Your task to perform on an android device: turn off airplane mode Image 0: 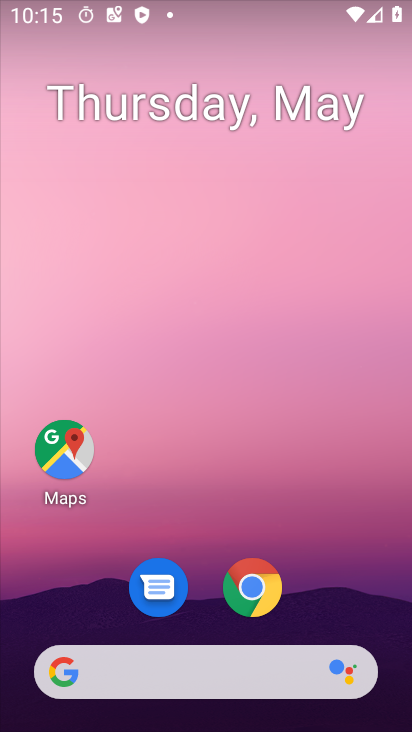
Step 0: drag from (362, 593) to (321, 5)
Your task to perform on an android device: turn off airplane mode Image 1: 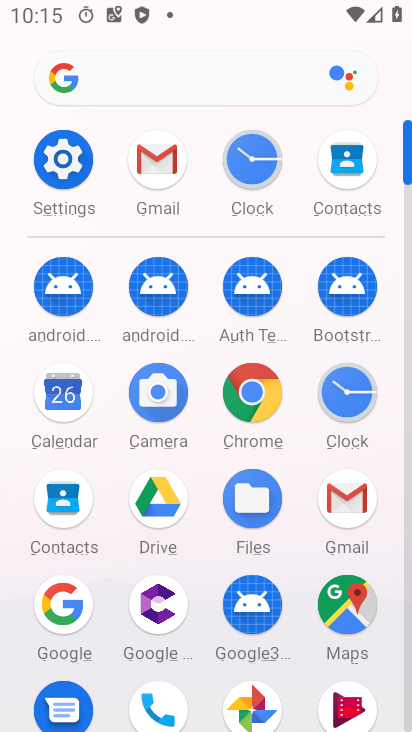
Step 1: click (64, 159)
Your task to perform on an android device: turn off airplane mode Image 2: 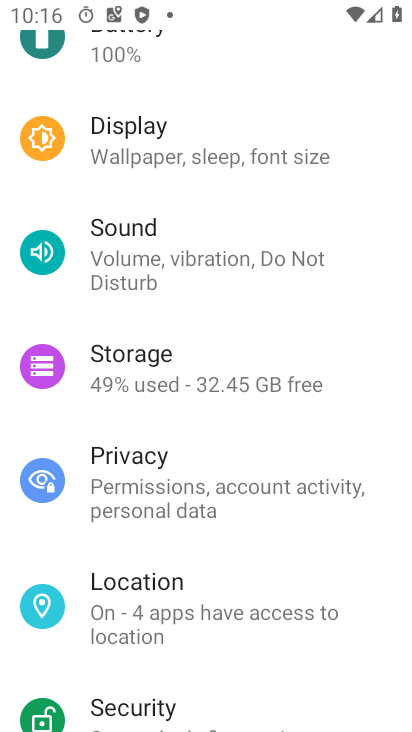
Step 2: drag from (404, 165) to (378, 647)
Your task to perform on an android device: turn off airplane mode Image 3: 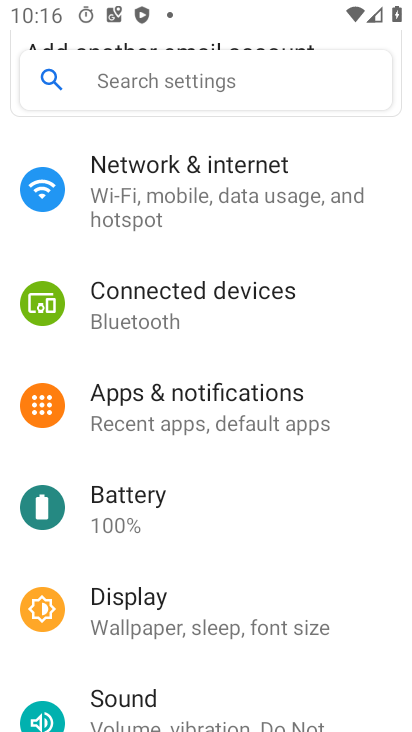
Step 3: drag from (400, 266) to (378, 475)
Your task to perform on an android device: turn off airplane mode Image 4: 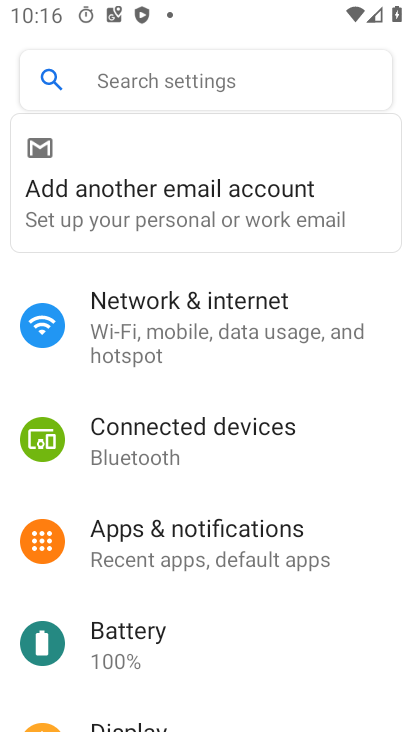
Step 4: click (178, 335)
Your task to perform on an android device: turn off airplane mode Image 5: 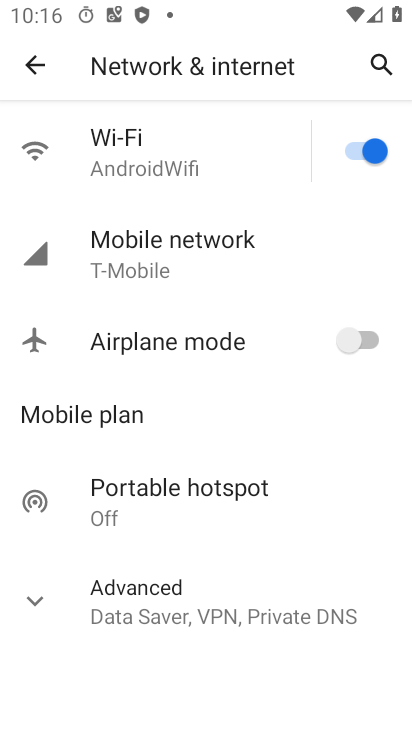
Step 5: task complete